Your task to perform on an android device: change the clock display to digital Image 0: 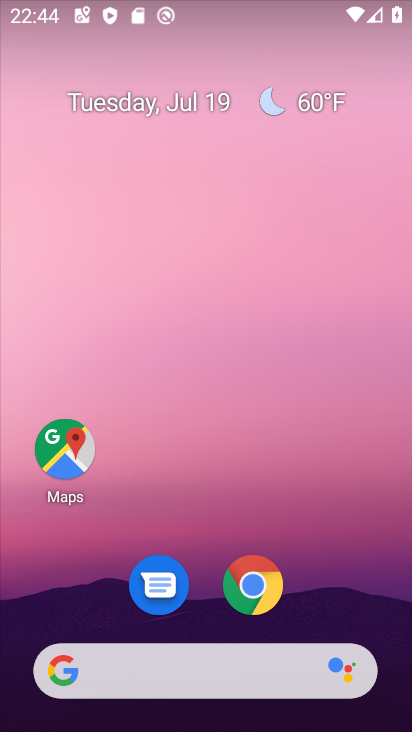
Step 0: drag from (313, 566) to (255, 94)
Your task to perform on an android device: change the clock display to digital Image 1: 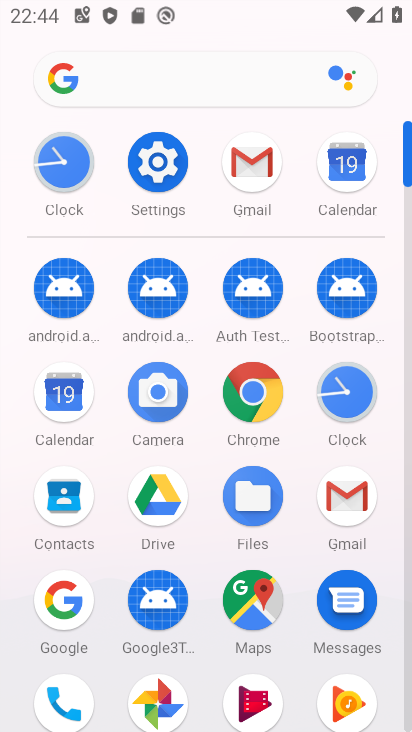
Step 1: click (71, 161)
Your task to perform on an android device: change the clock display to digital Image 2: 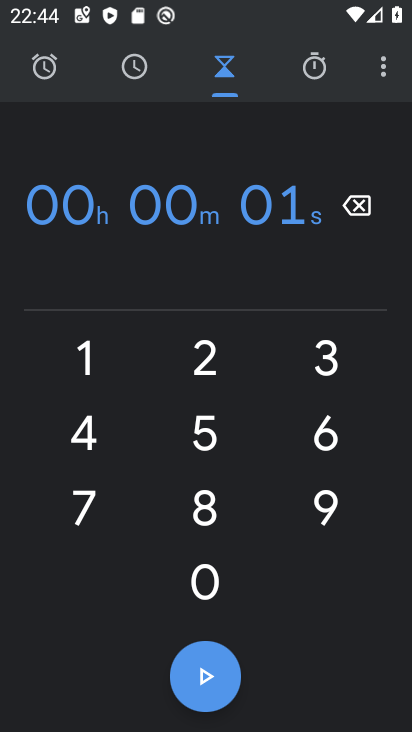
Step 2: click (134, 69)
Your task to perform on an android device: change the clock display to digital Image 3: 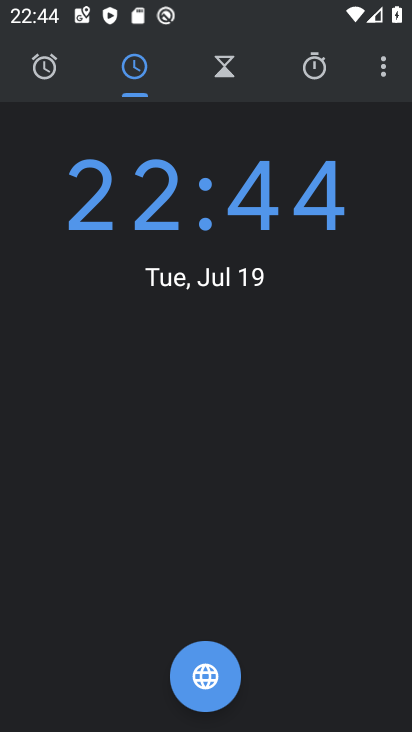
Step 3: task complete